Your task to perform on an android device: turn on data saver in the chrome app Image 0: 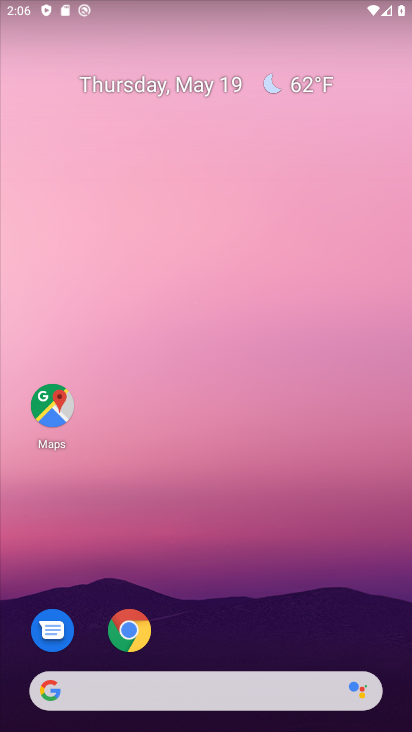
Step 0: drag from (385, 630) to (355, 121)
Your task to perform on an android device: turn on data saver in the chrome app Image 1: 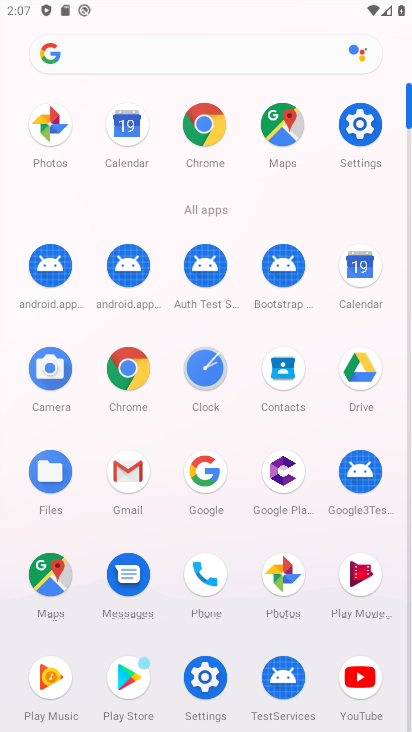
Step 1: click (131, 375)
Your task to perform on an android device: turn on data saver in the chrome app Image 2: 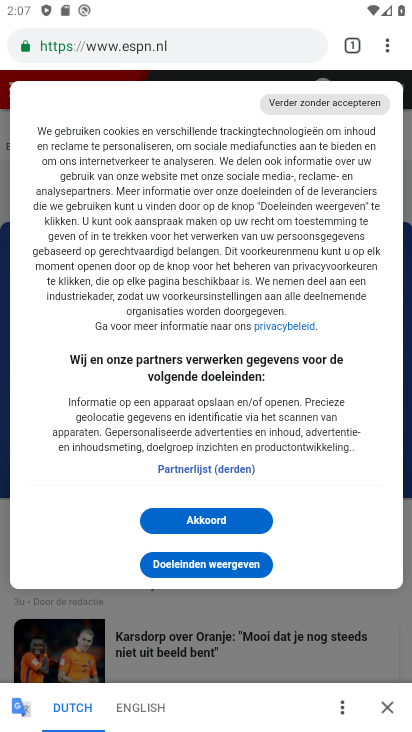
Step 2: drag from (387, 59) to (225, 586)
Your task to perform on an android device: turn on data saver in the chrome app Image 3: 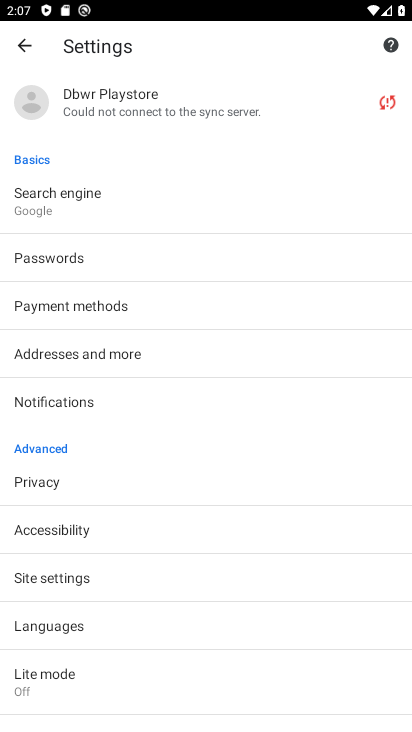
Step 3: click (80, 683)
Your task to perform on an android device: turn on data saver in the chrome app Image 4: 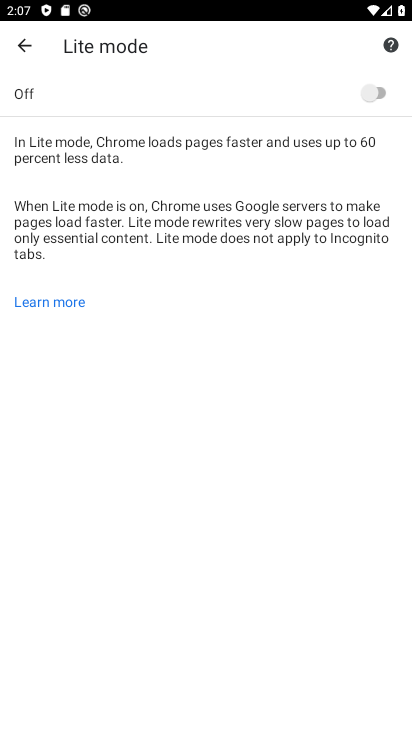
Step 4: click (387, 87)
Your task to perform on an android device: turn on data saver in the chrome app Image 5: 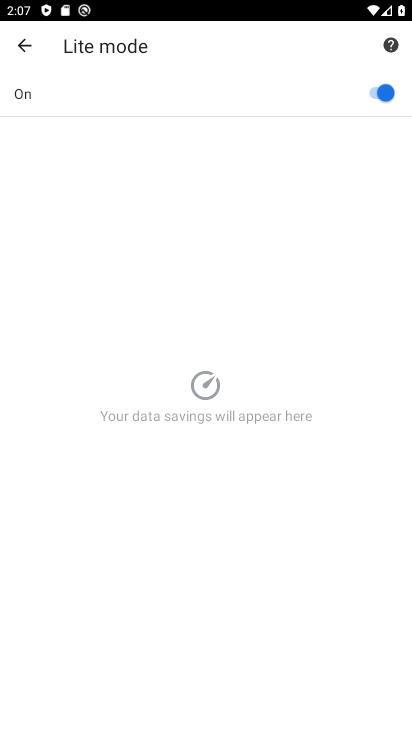
Step 5: task complete